Your task to perform on an android device: toggle show notifications on the lock screen Image 0: 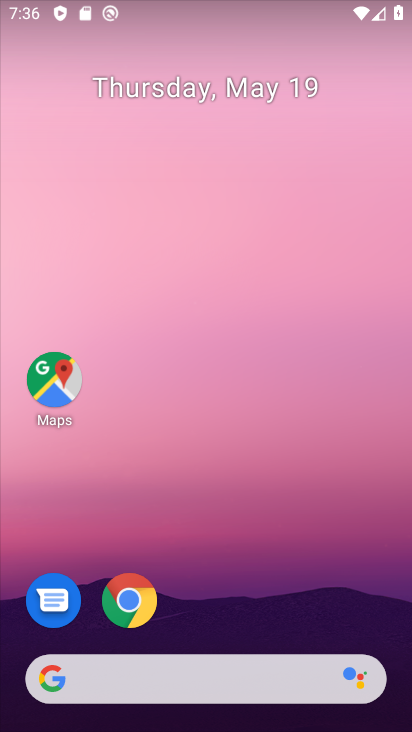
Step 0: drag from (378, 602) to (362, 215)
Your task to perform on an android device: toggle show notifications on the lock screen Image 1: 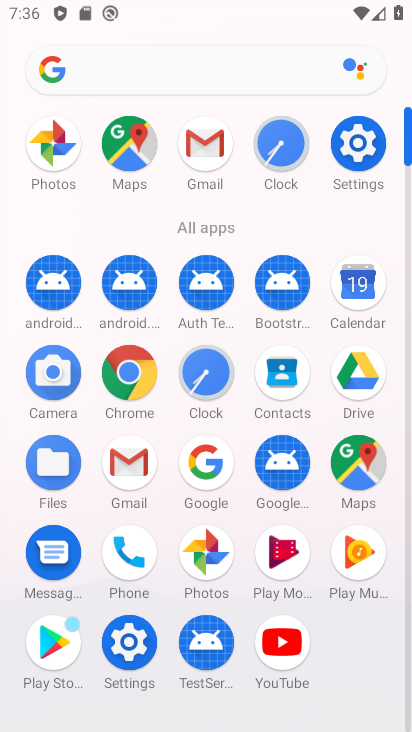
Step 1: click (365, 175)
Your task to perform on an android device: toggle show notifications on the lock screen Image 2: 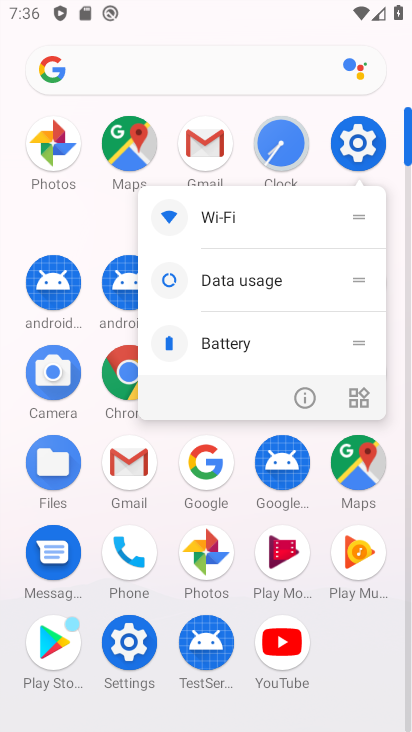
Step 2: click (365, 163)
Your task to perform on an android device: toggle show notifications on the lock screen Image 3: 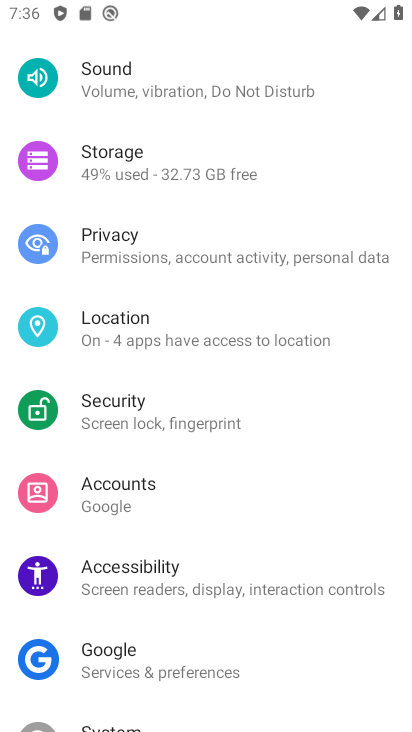
Step 3: drag from (354, 459) to (353, 389)
Your task to perform on an android device: toggle show notifications on the lock screen Image 4: 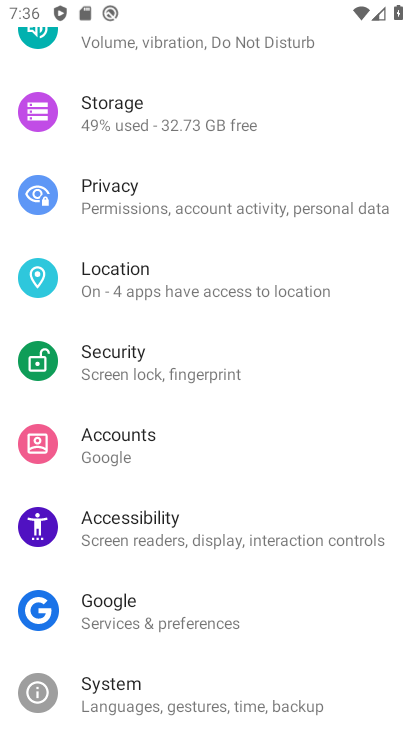
Step 4: drag from (369, 614) to (366, 433)
Your task to perform on an android device: toggle show notifications on the lock screen Image 5: 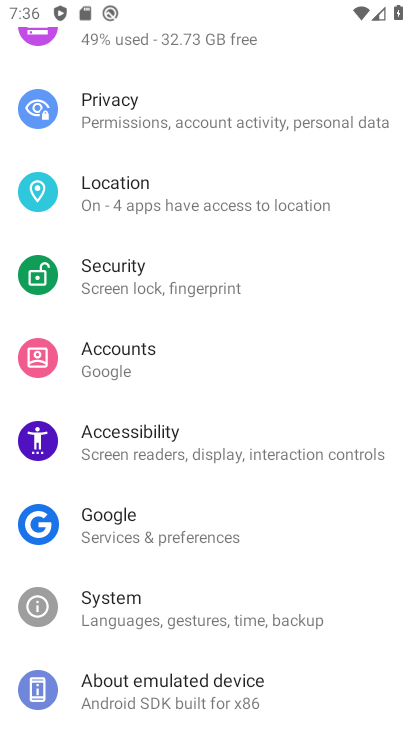
Step 5: drag from (355, 646) to (346, 468)
Your task to perform on an android device: toggle show notifications on the lock screen Image 6: 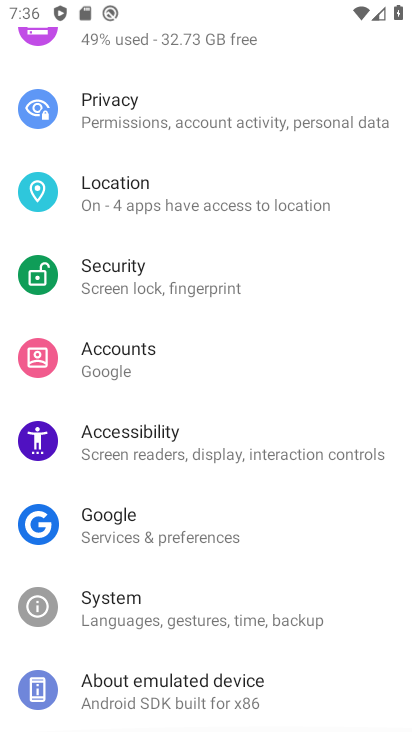
Step 6: drag from (346, 361) to (351, 471)
Your task to perform on an android device: toggle show notifications on the lock screen Image 7: 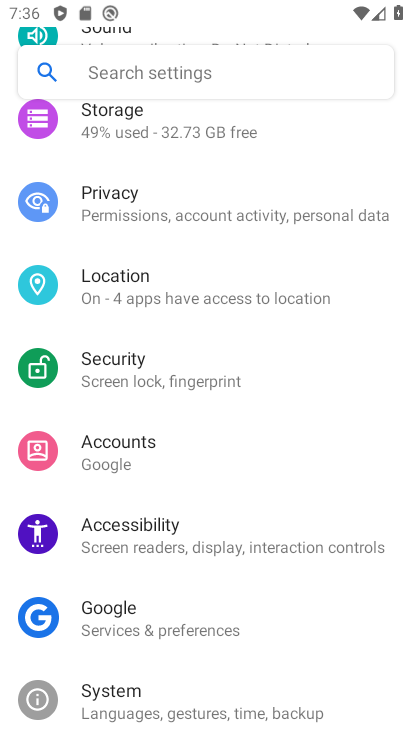
Step 7: drag from (351, 341) to (346, 440)
Your task to perform on an android device: toggle show notifications on the lock screen Image 8: 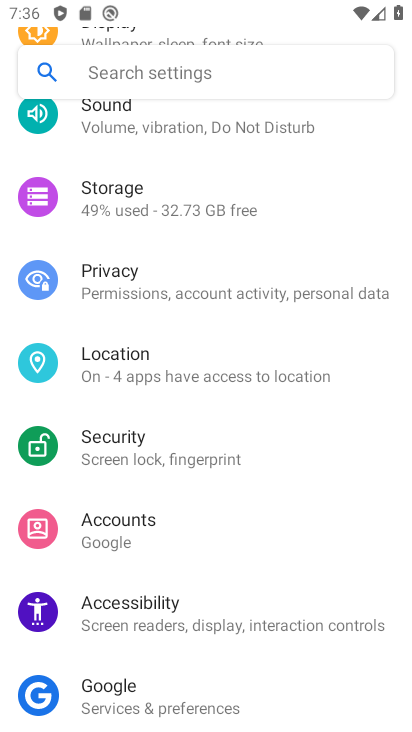
Step 8: drag from (350, 333) to (355, 425)
Your task to perform on an android device: toggle show notifications on the lock screen Image 9: 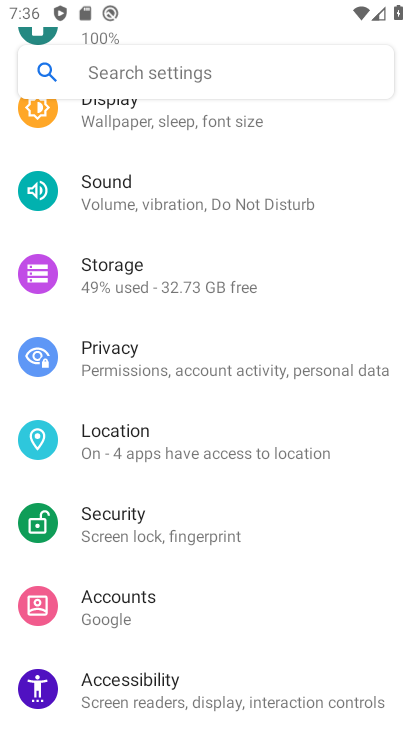
Step 9: drag from (360, 295) to (363, 404)
Your task to perform on an android device: toggle show notifications on the lock screen Image 10: 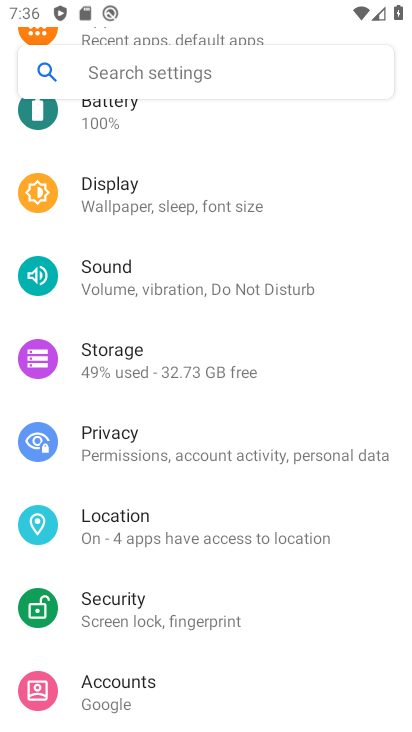
Step 10: drag from (347, 248) to (348, 349)
Your task to perform on an android device: toggle show notifications on the lock screen Image 11: 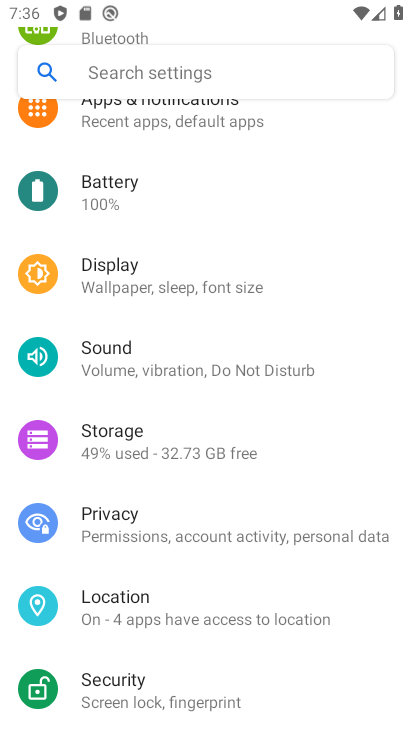
Step 11: drag from (338, 215) to (339, 345)
Your task to perform on an android device: toggle show notifications on the lock screen Image 12: 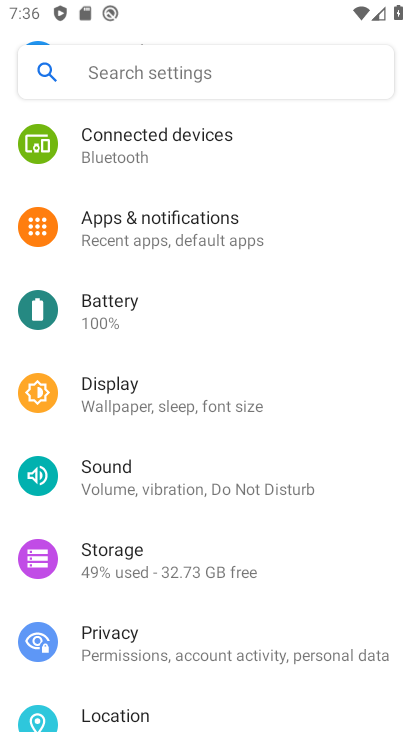
Step 12: drag from (316, 251) to (326, 320)
Your task to perform on an android device: toggle show notifications on the lock screen Image 13: 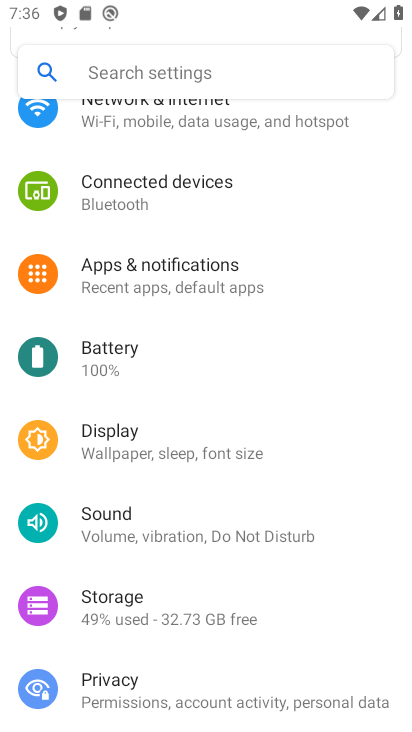
Step 13: click (290, 292)
Your task to perform on an android device: toggle show notifications on the lock screen Image 14: 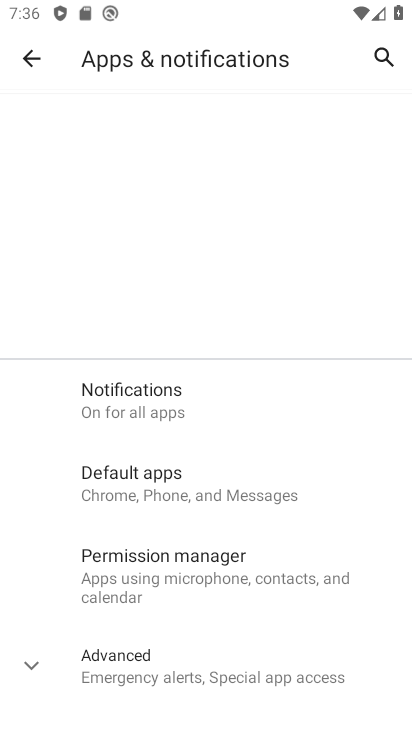
Step 14: drag from (336, 496) to (337, 362)
Your task to perform on an android device: toggle show notifications on the lock screen Image 15: 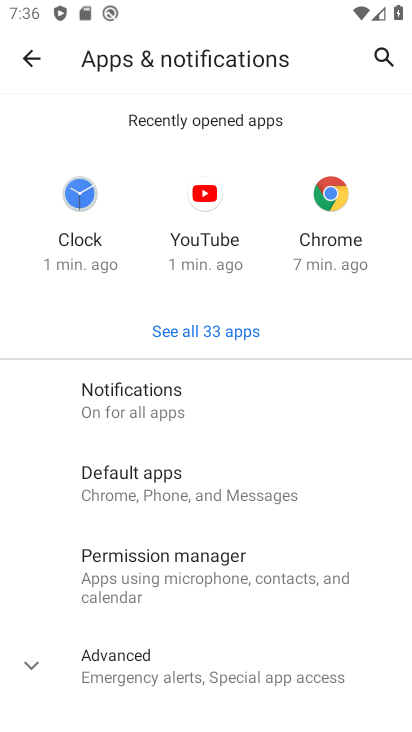
Step 15: click (165, 407)
Your task to perform on an android device: toggle show notifications on the lock screen Image 16: 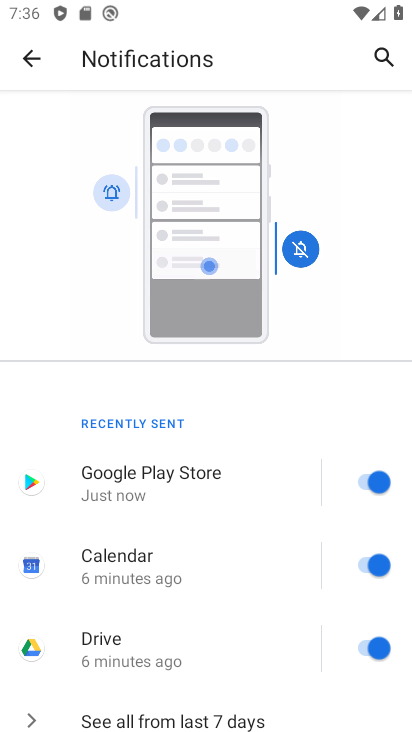
Step 16: drag from (263, 596) to (271, 497)
Your task to perform on an android device: toggle show notifications on the lock screen Image 17: 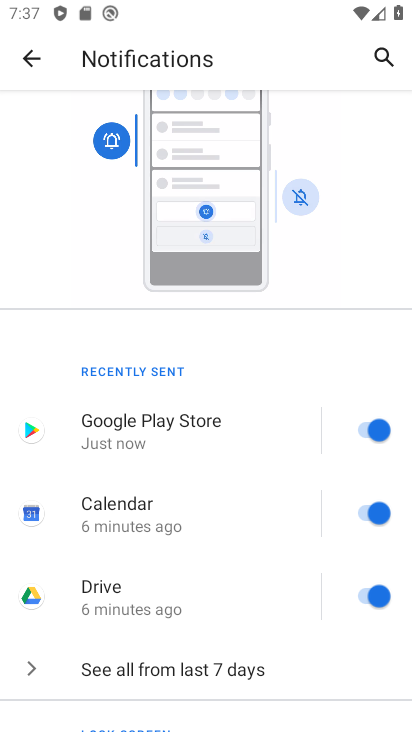
Step 17: drag from (279, 592) to (281, 481)
Your task to perform on an android device: toggle show notifications on the lock screen Image 18: 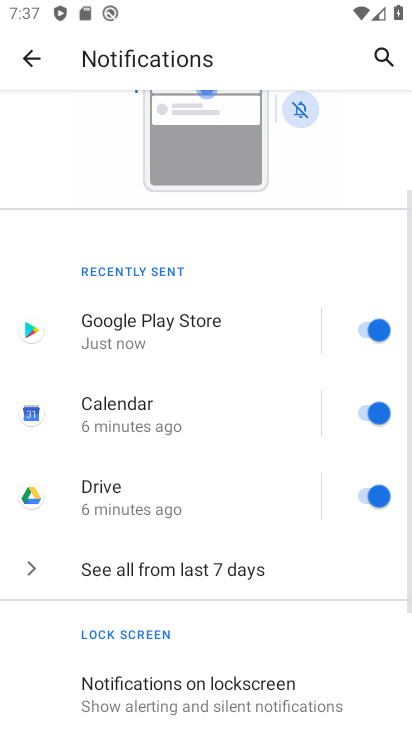
Step 18: drag from (284, 600) to (286, 516)
Your task to perform on an android device: toggle show notifications on the lock screen Image 19: 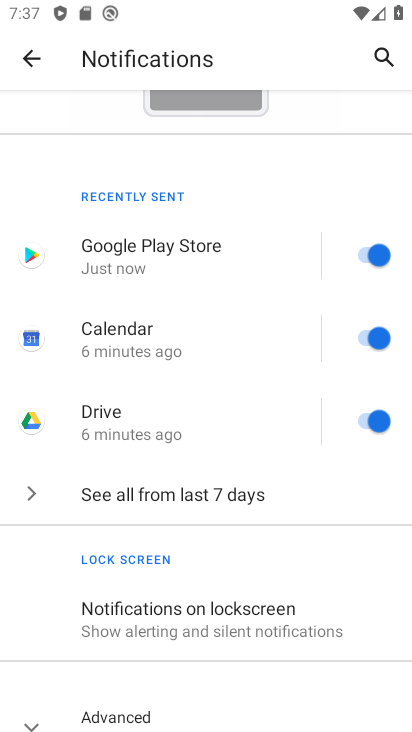
Step 19: drag from (292, 643) to (298, 481)
Your task to perform on an android device: toggle show notifications on the lock screen Image 20: 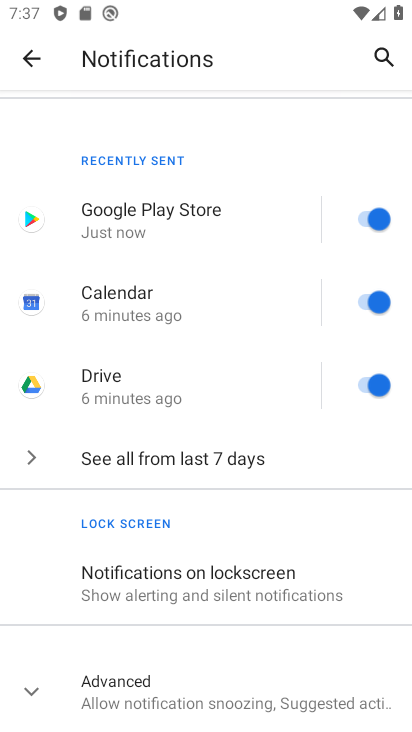
Step 20: click (283, 585)
Your task to perform on an android device: toggle show notifications on the lock screen Image 21: 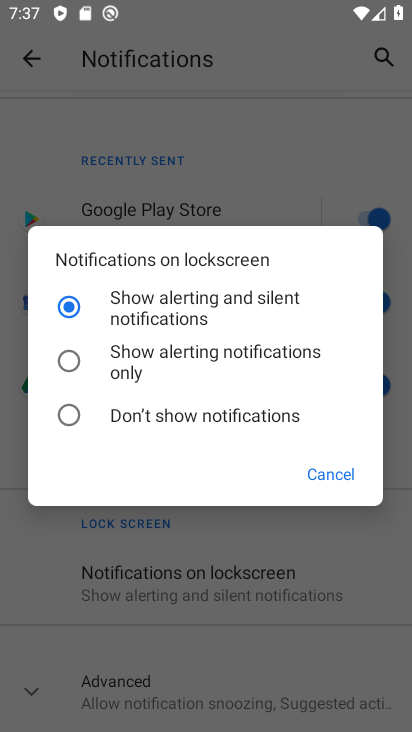
Step 21: click (138, 370)
Your task to perform on an android device: toggle show notifications on the lock screen Image 22: 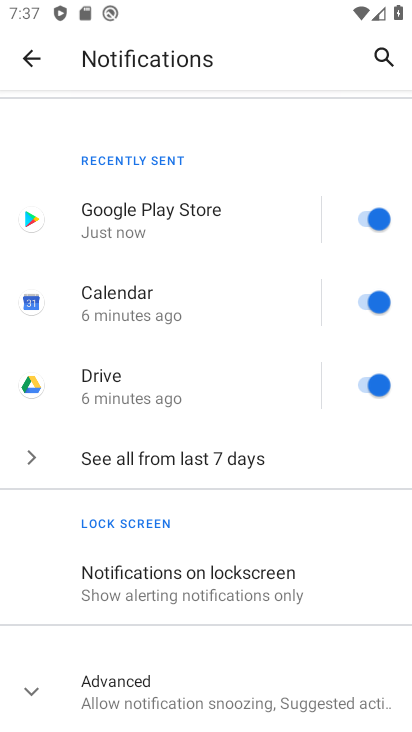
Step 22: task complete